Your task to perform on an android device: Go to notification settings Image 0: 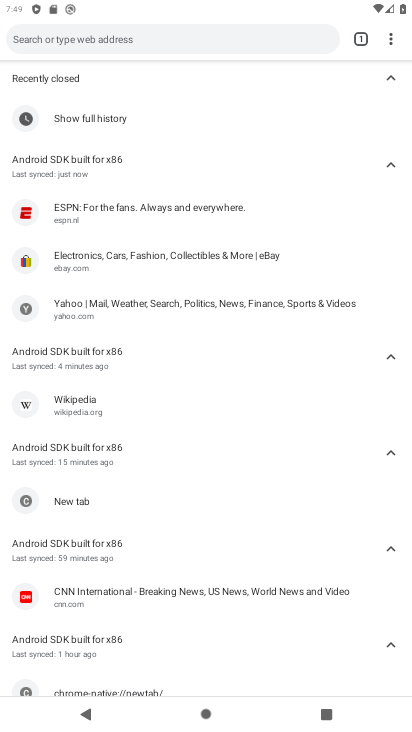
Step 0: press home button
Your task to perform on an android device: Go to notification settings Image 1: 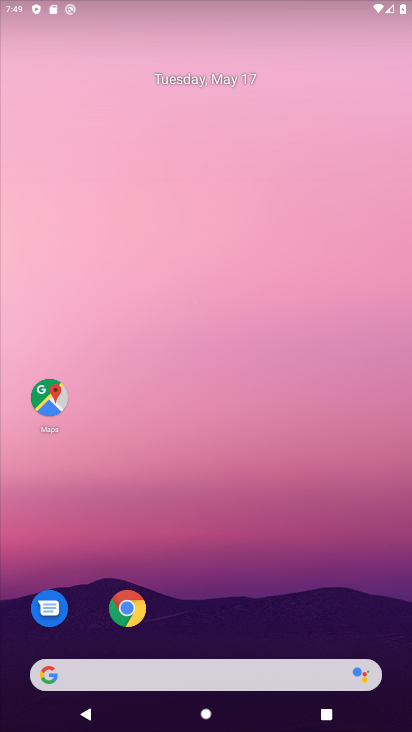
Step 1: drag from (294, 596) to (259, 118)
Your task to perform on an android device: Go to notification settings Image 2: 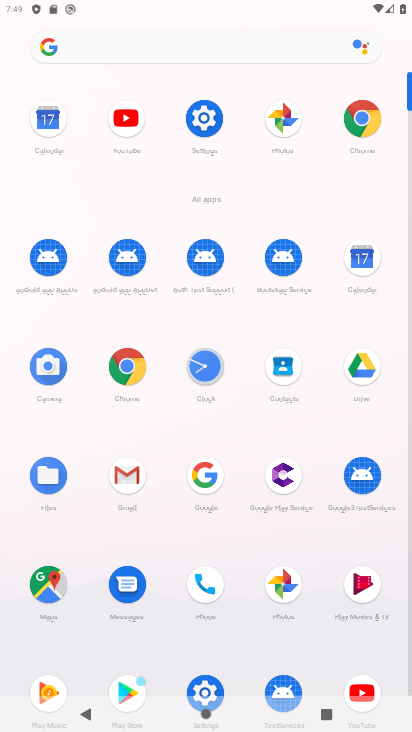
Step 2: click (185, 118)
Your task to perform on an android device: Go to notification settings Image 3: 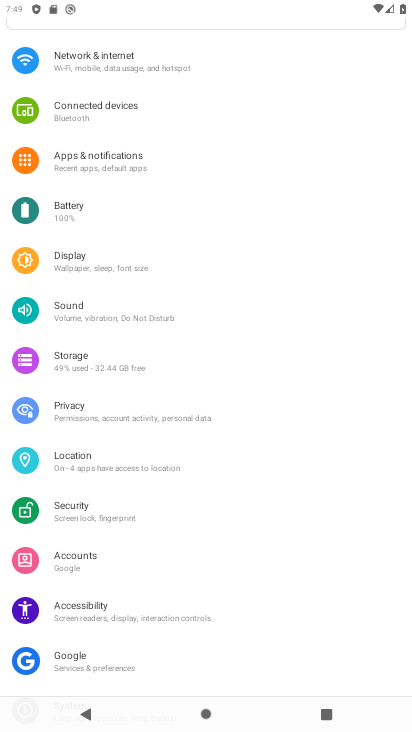
Step 3: click (105, 157)
Your task to perform on an android device: Go to notification settings Image 4: 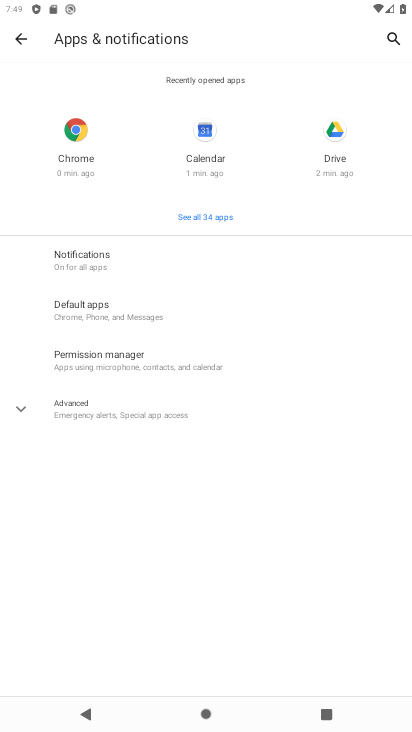
Step 4: click (104, 252)
Your task to perform on an android device: Go to notification settings Image 5: 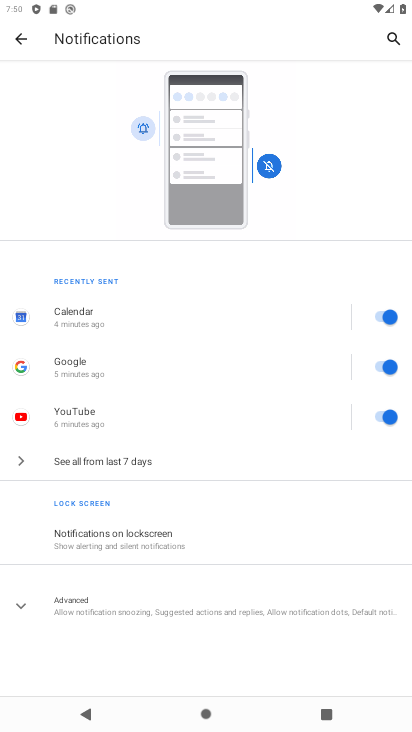
Step 5: task complete